Your task to perform on an android device: Open Google Chrome and open the bookmarks view Image 0: 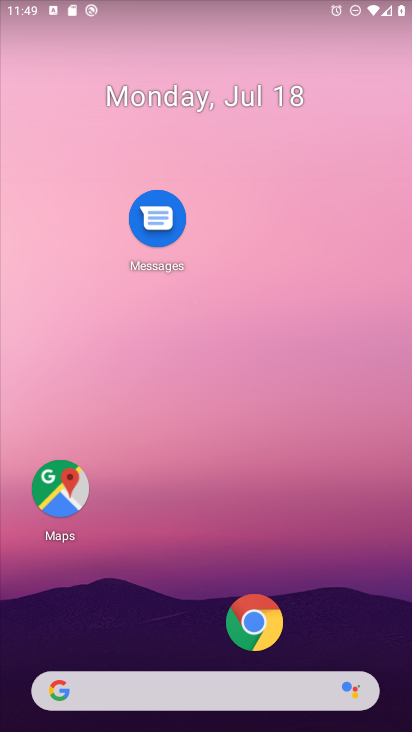
Step 0: drag from (157, 704) to (124, 113)
Your task to perform on an android device: Open Google Chrome and open the bookmarks view Image 1: 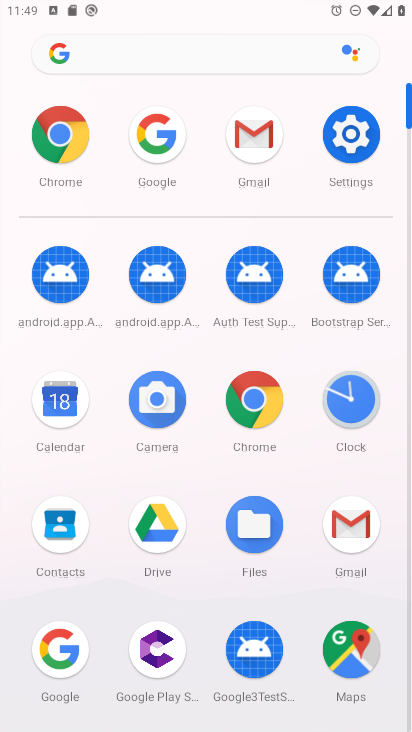
Step 1: click (61, 134)
Your task to perform on an android device: Open Google Chrome and open the bookmarks view Image 2: 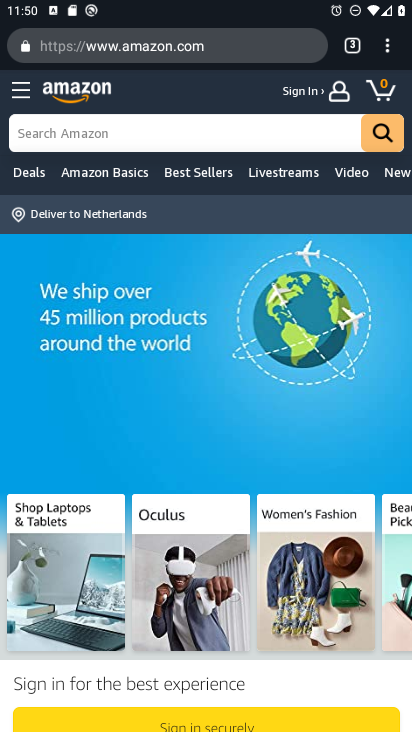
Step 2: click (398, 54)
Your task to perform on an android device: Open Google Chrome and open the bookmarks view Image 3: 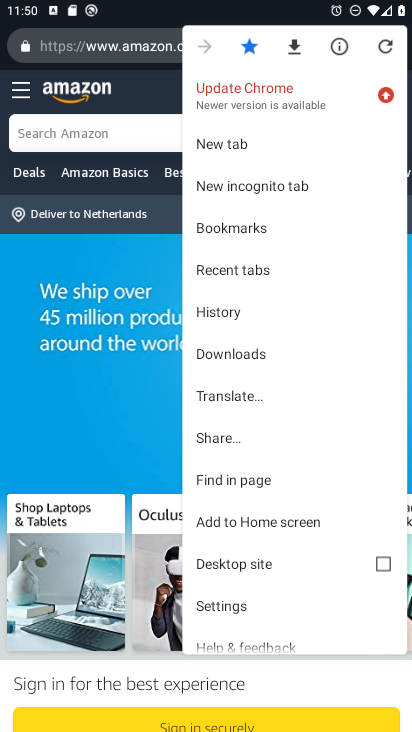
Step 3: click (255, 232)
Your task to perform on an android device: Open Google Chrome and open the bookmarks view Image 4: 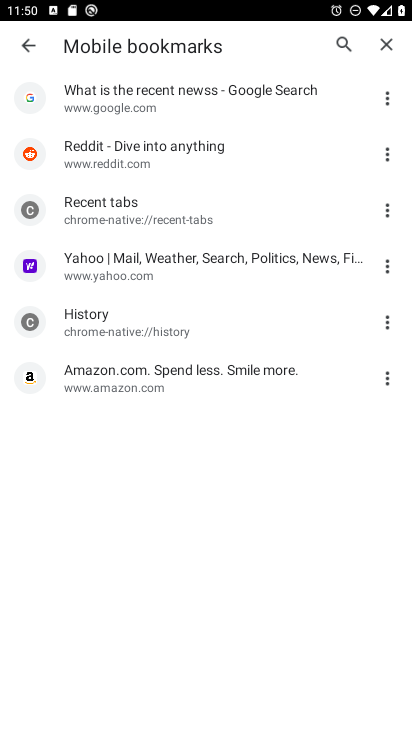
Step 4: task complete